Your task to perform on an android device: Open CNN.com Image 0: 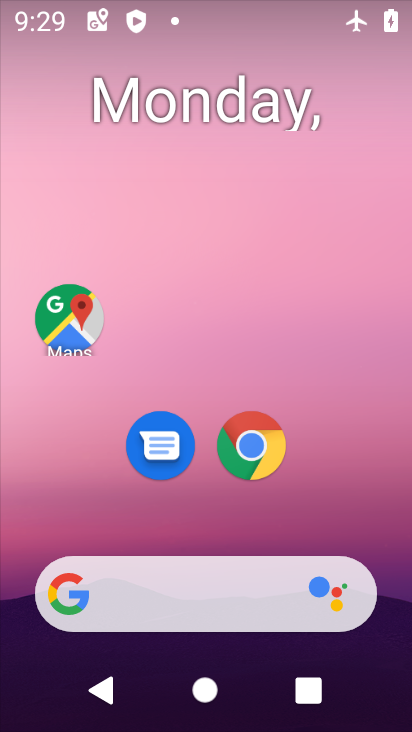
Step 0: click (239, 584)
Your task to perform on an android device: Open CNN.com Image 1: 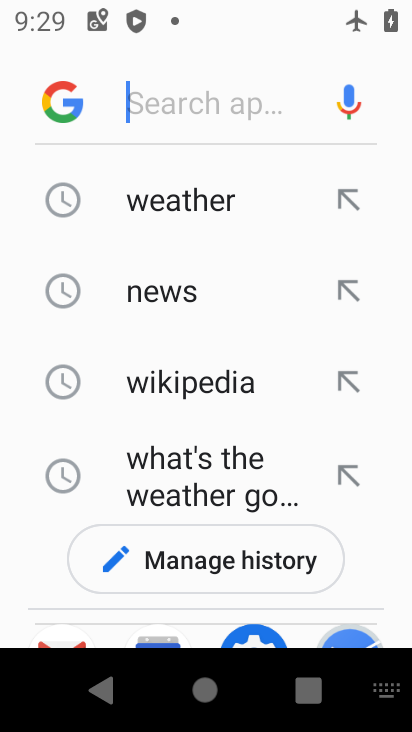
Step 1: type "cnn.com"
Your task to perform on an android device: Open CNN.com Image 2: 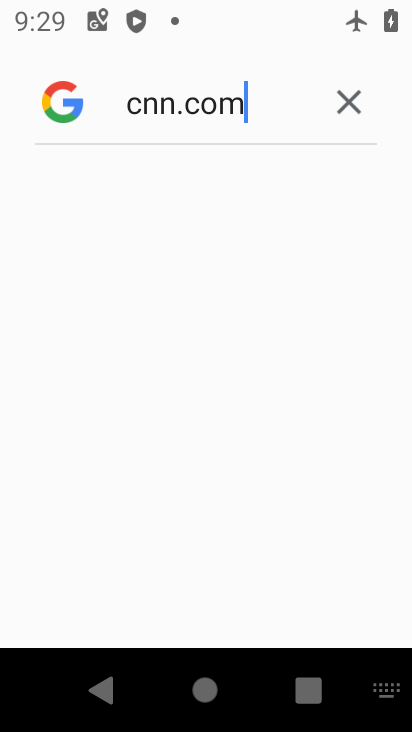
Step 2: task complete